Your task to perform on an android device: Open Google Maps and go to "Timeline" Image 0: 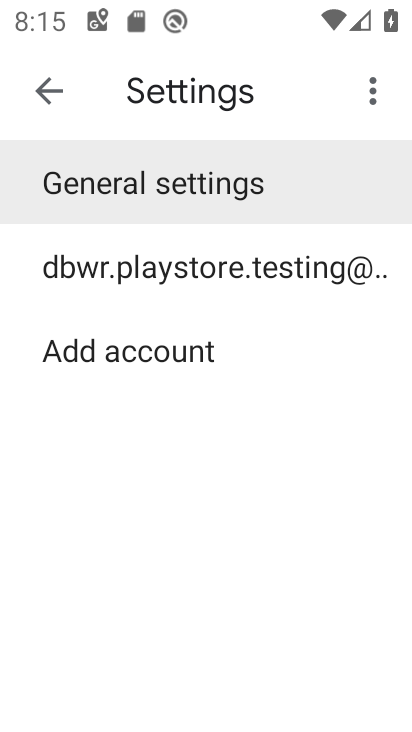
Step 0: press back button
Your task to perform on an android device: Open Google Maps and go to "Timeline" Image 1: 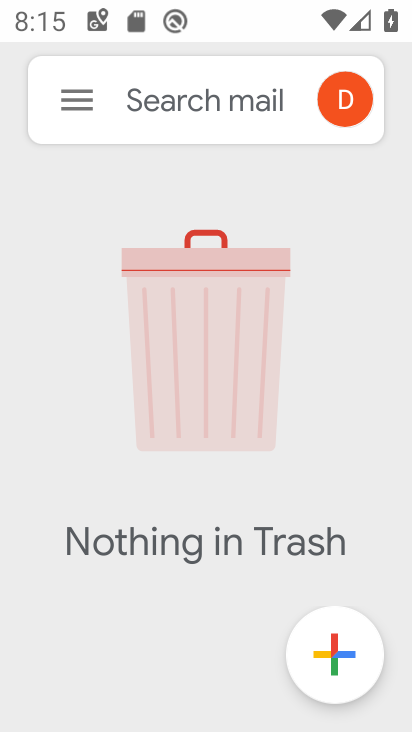
Step 1: press back button
Your task to perform on an android device: Open Google Maps and go to "Timeline" Image 2: 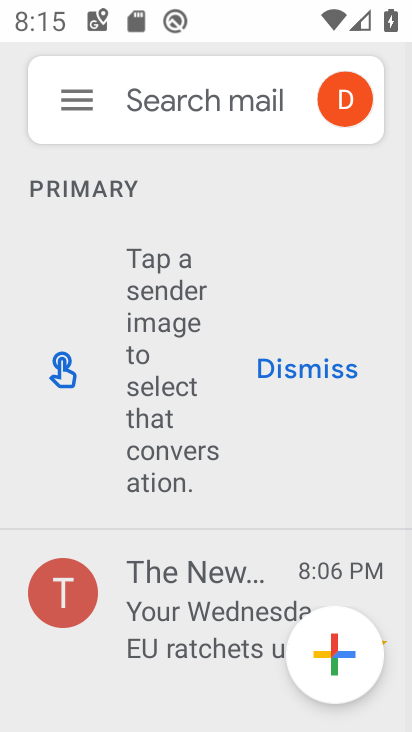
Step 2: press back button
Your task to perform on an android device: Open Google Maps and go to "Timeline" Image 3: 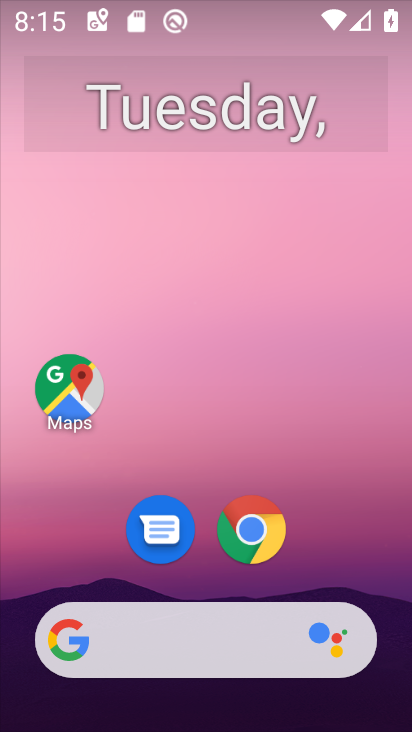
Step 3: click (62, 381)
Your task to perform on an android device: Open Google Maps and go to "Timeline" Image 4: 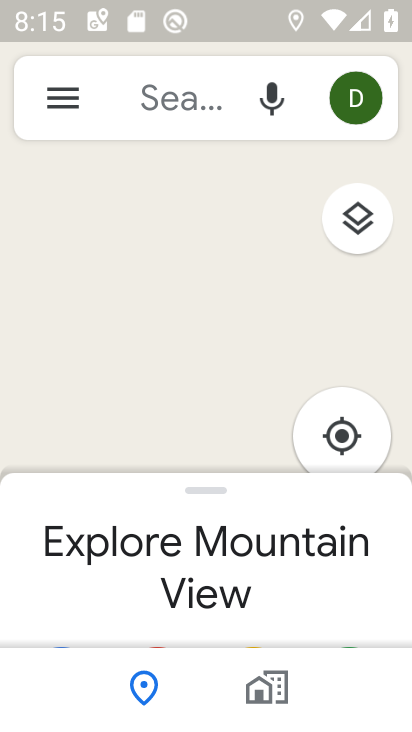
Step 4: click (51, 98)
Your task to perform on an android device: Open Google Maps and go to "Timeline" Image 5: 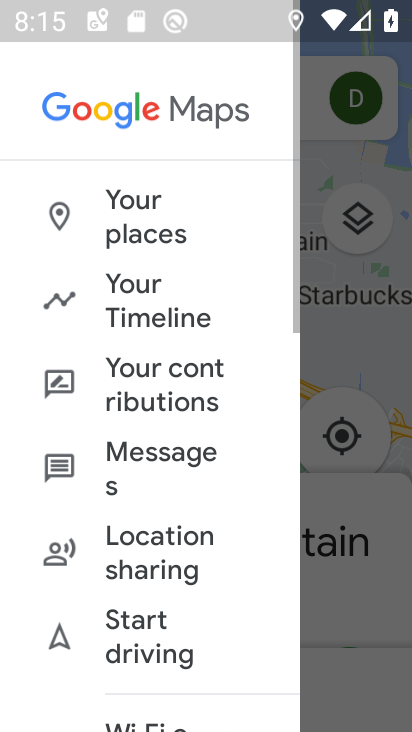
Step 5: click (157, 307)
Your task to perform on an android device: Open Google Maps and go to "Timeline" Image 6: 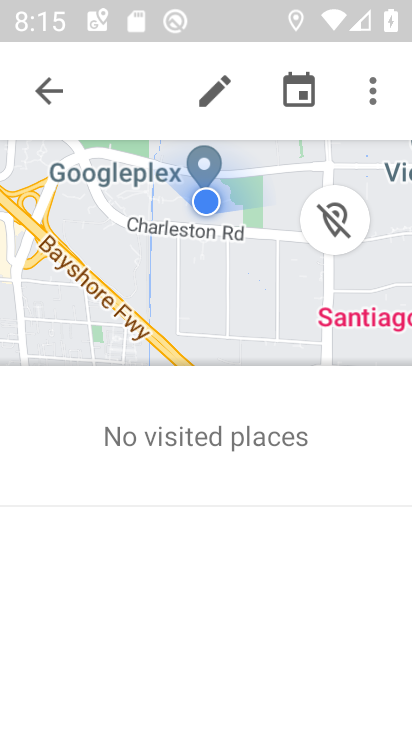
Step 6: task complete